Your task to perform on an android device: turn off airplane mode Image 0: 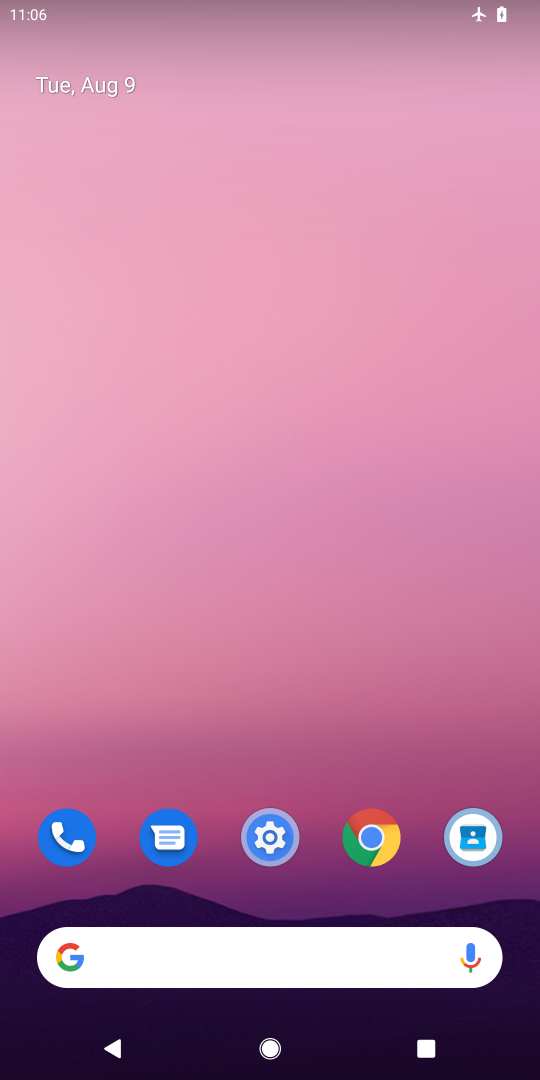
Step 0: drag from (325, 904) to (343, 83)
Your task to perform on an android device: turn off airplane mode Image 1: 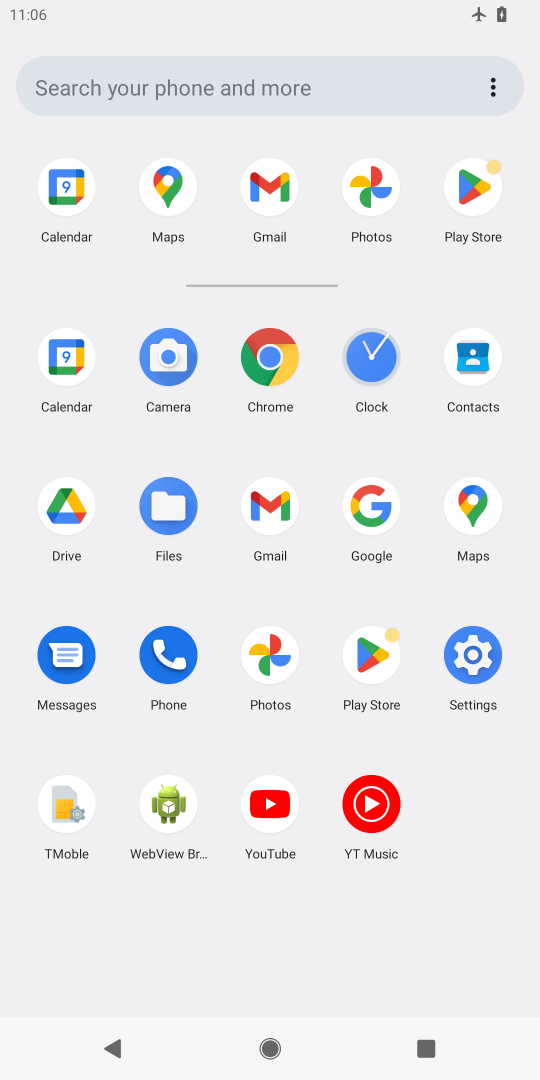
Step 1: click (475, 662)
Your task to perform on an android device: turn off airplane mode Image 2: 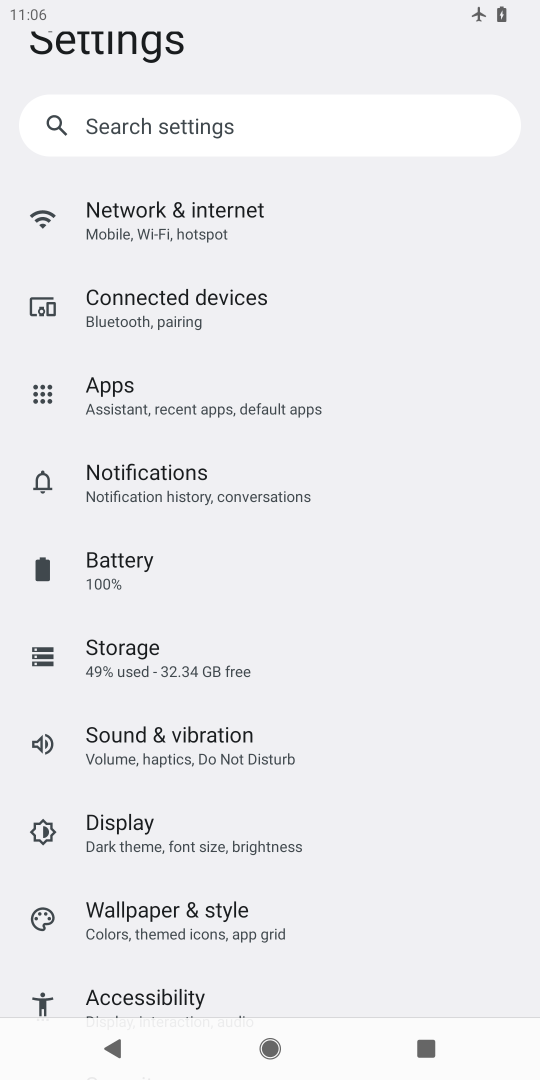
Step 2: click (195, 224)
Your task to perform on an android device: turn off airplane mode Image 3: 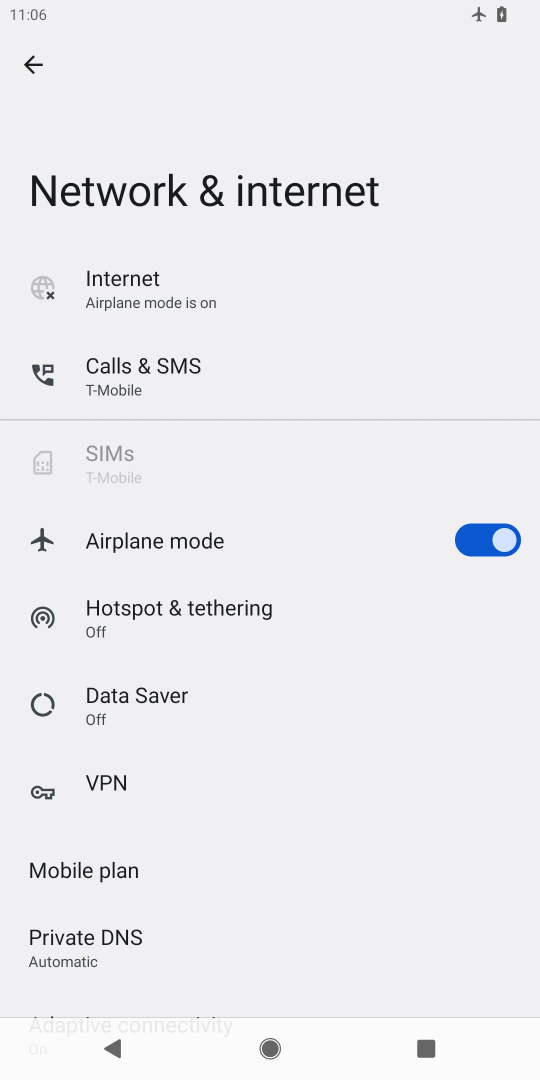
Step 3: click (493, 537)
Your task to perform on an android device: turn off airplane mode Image 4: 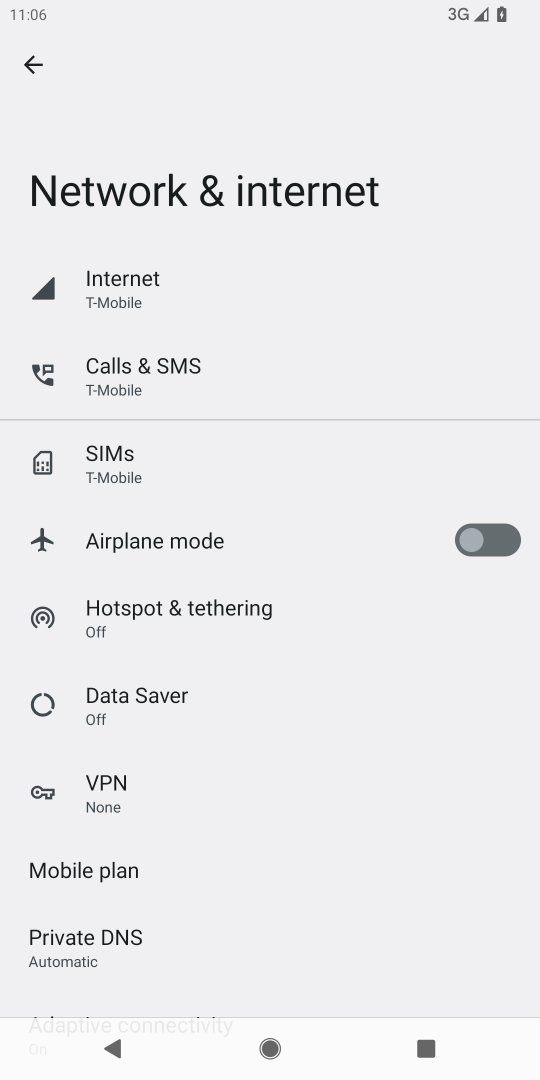
Step 4: task complete